Your task to perform on an android device: Open accessibility settings Image 0: 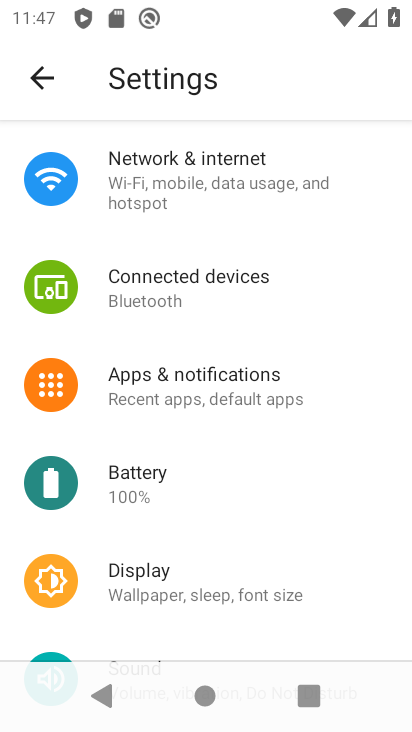
Step 0: drag from (151, 537) to (187, 146)
Your task to perform on an android device: Open accessibility settings Image 1: 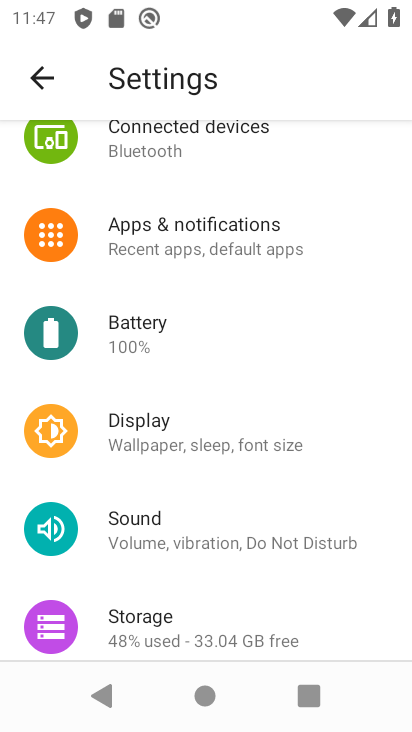
Step 1: drag from (212, 646) to (223, 308)
Your task to perform on an android device: Open accessibility settings Image 2: 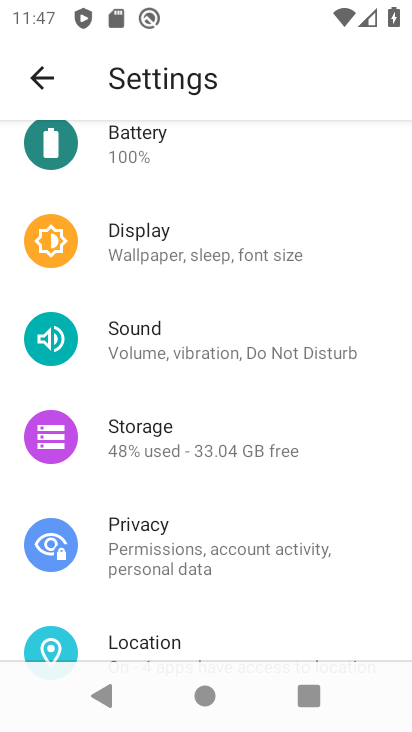
Step 2: drag from (167, 570) to (150, 305)
Your task to perform on an android device: Open accessibility settings Image 3: 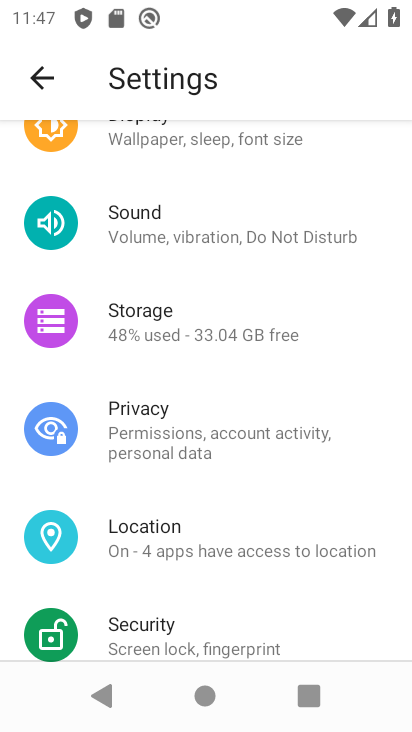
Step 3: drag from (116, 582) to (166, 219)
Your task to perform on an android device: Open accessibility settings Image 4: 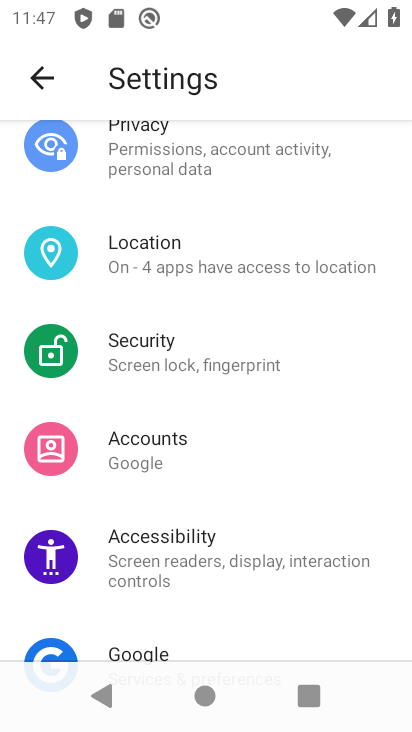
Step 4: click (137, 564)
Your task to perform on an android device: Open accessibility settings Image 5: 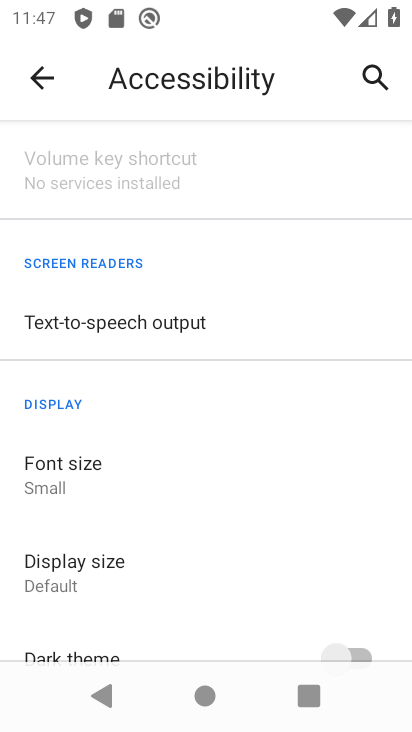
Step 5: task complete